Your task to perform on an android device: toggle show notifications on the lock screen Image 0: 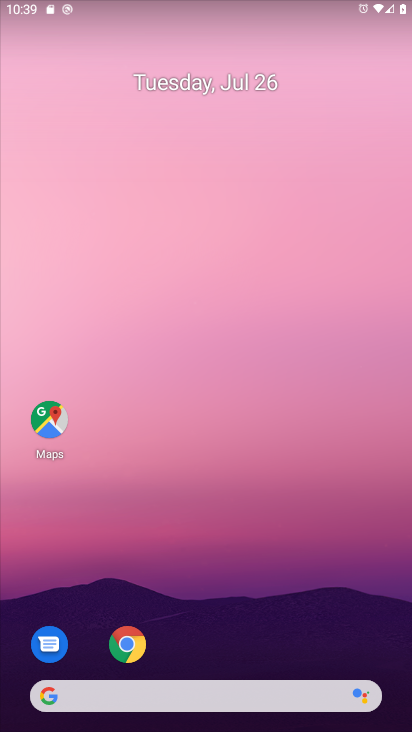
Step 0: drag from (241, 616) to (228, 1)
Your task to perform on an android device: toggle show notifications on the lock screen Image 1: 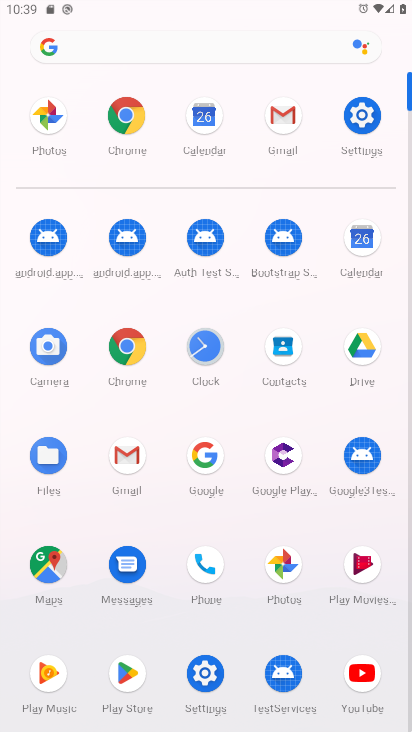
Step 1: click (205, 676)
Your task to perform on an android device: toggle show notifications on the lock screen Image 2: 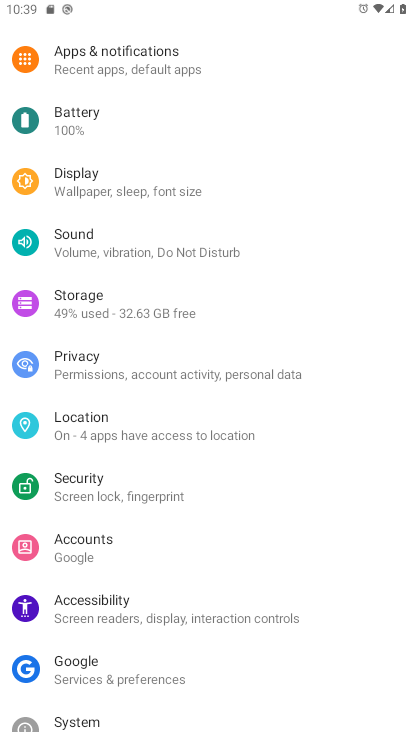
Step 2: click (156, 67)
Your task to perform on an android device: toggle show notifications on the lock screen Image 3: 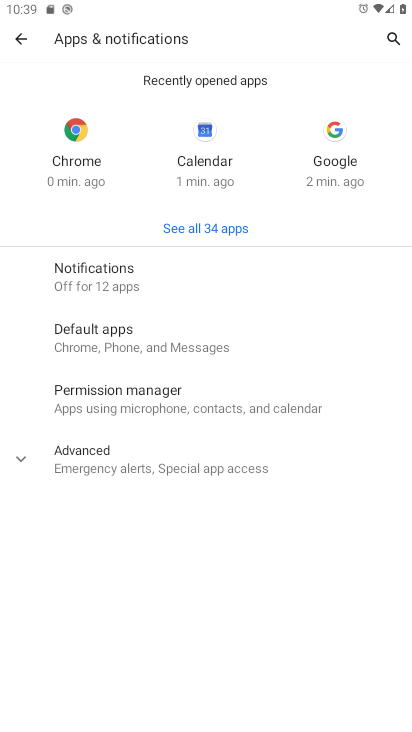
Step 3: click (132, 275)
Your task to perform on an android device: toggle show notifications on the lock screen Image 4: 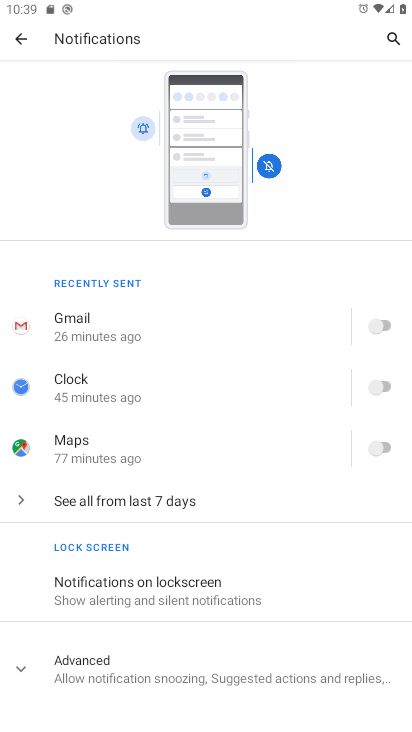
Step 4: click (105, 591)
Your task to perform on an android device: toggle show notifications on the lock screen Image 5: 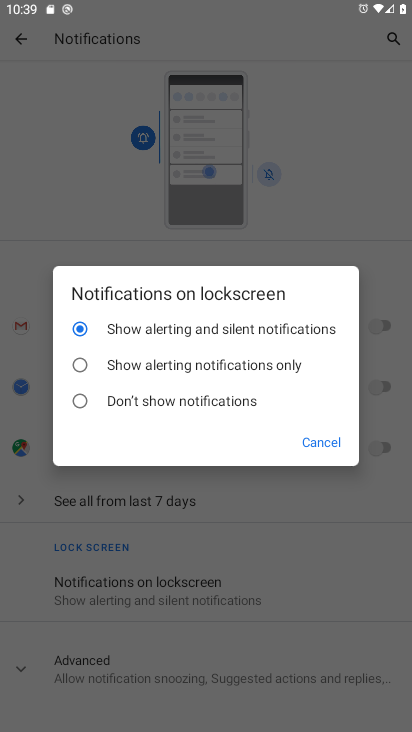
Step 5: click (107, 407)
Your task to perform on an android device: toggle show notifications on the lock screen Image 6: 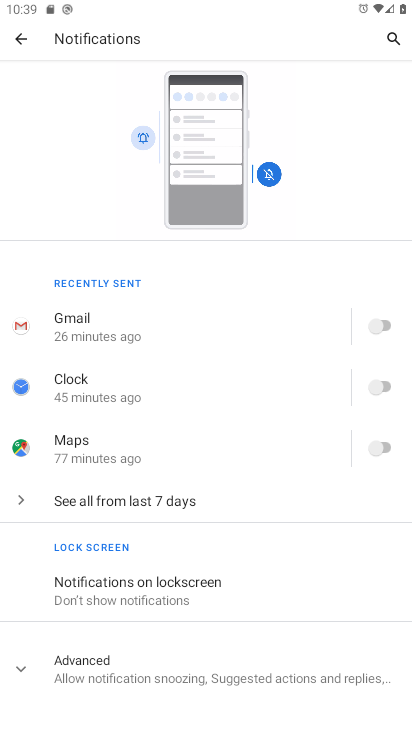
Step 6: task complete